Your task to perform on an android device: Open Amazon Image 0: 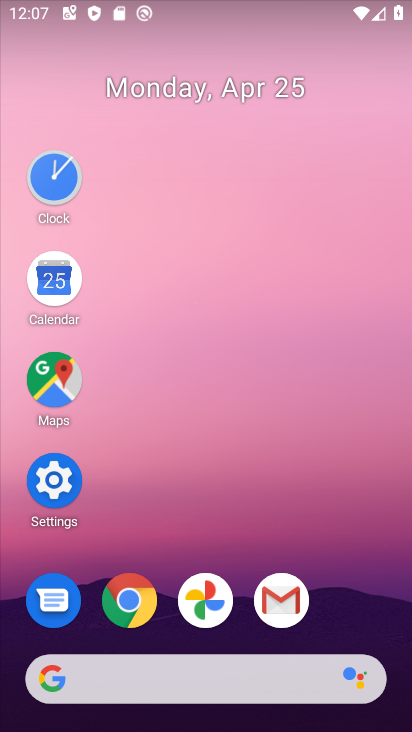
Step 0: click (135, 605)
Your task to perform on an android device: Open Amazon Image 1: 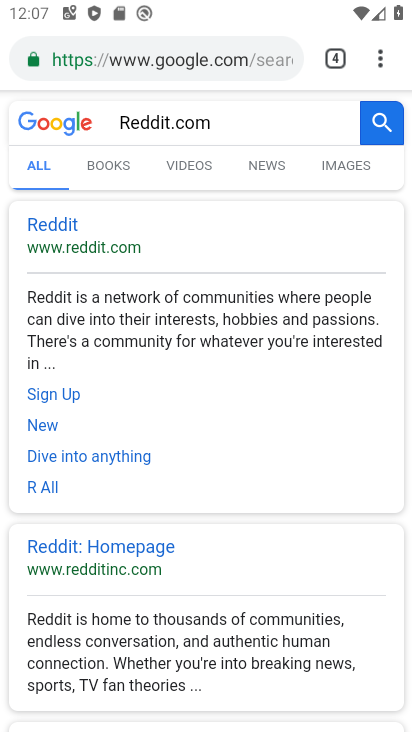
Step 1: click (380, 56)
Your task to perform on an android device: Open Amazon Image 2: 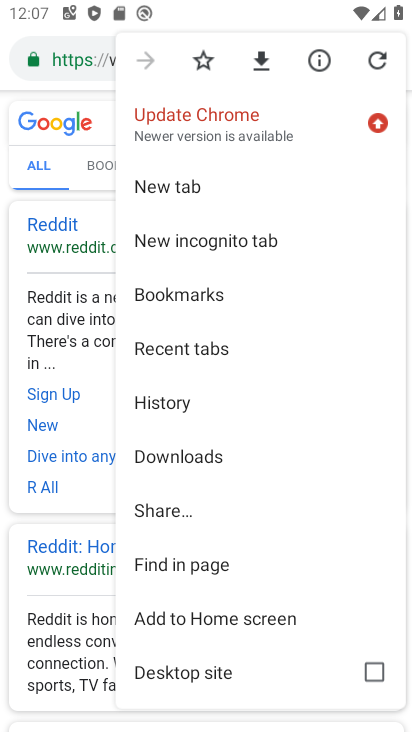
Step 2: click (183, 186)
Your task to perform on an android device: Open Amazon Image 3: 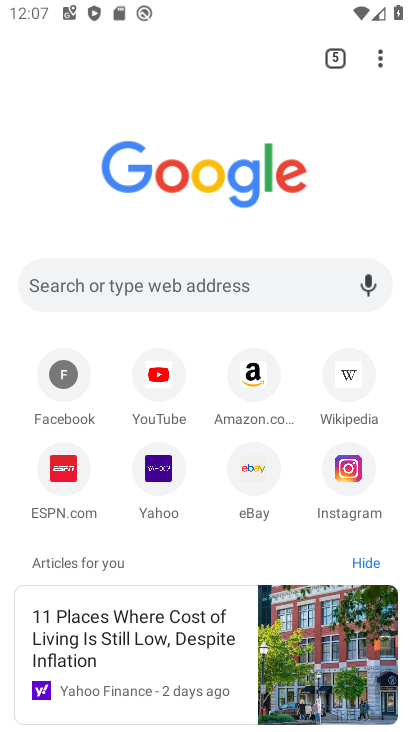
Step 3: click (249, 382)
Your task to perform on an android device: Open Amazon Image 4: 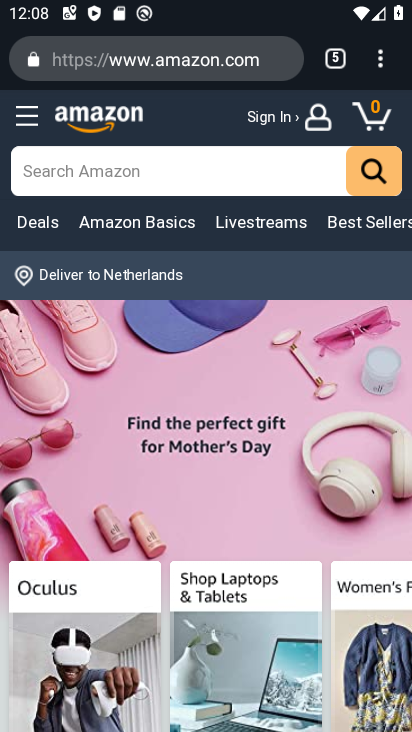
Step 4: task complete